Your task to perform on an android device: Do I have any events tomorrow? Image 0: 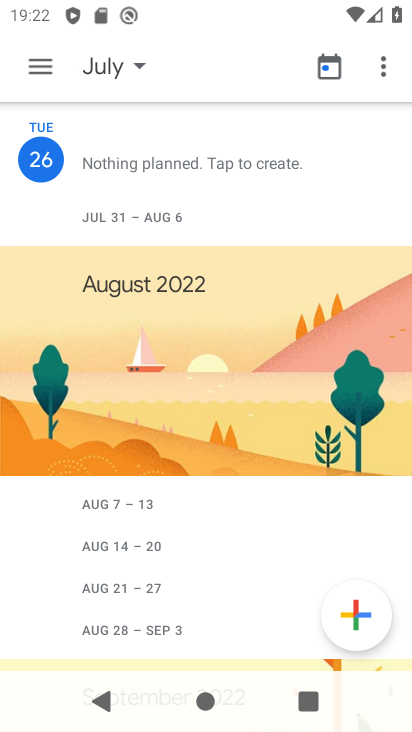
Step 0: click (120, 66)
Your task to perform on an android device: Do I have any events tomorrow? Image 1: 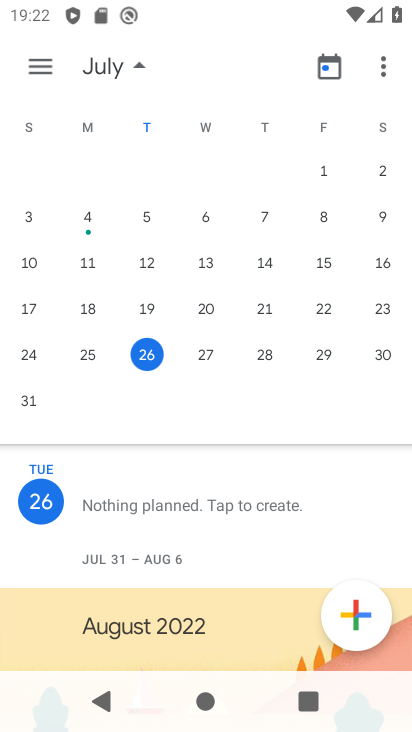
Step 1: click (203, 353)
Your task to perform on an android device: Do I have any events tomorrow? Image 2: 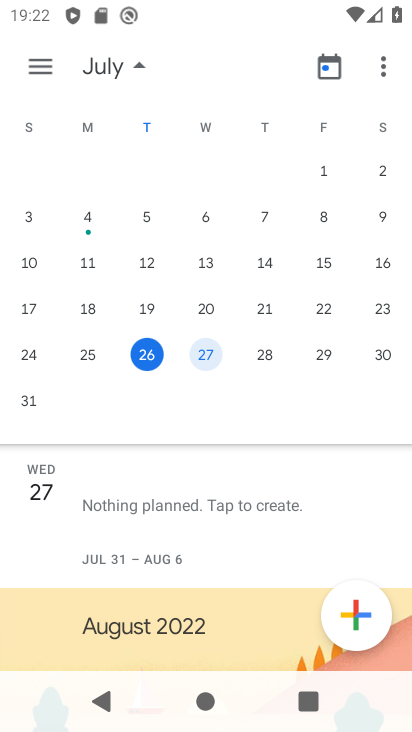
Step 2: click (44, 67)
Your task to perform on an android device: Do I have any events tomorrow? Image 3: 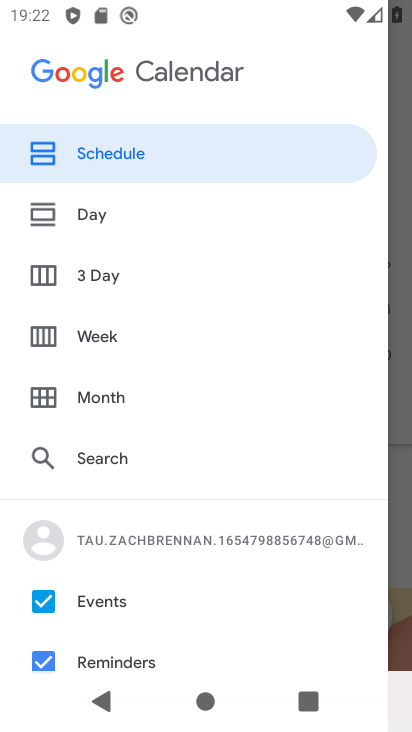
Step 3: click (94, 212)
Your task to perform on an android device: Do I have any events tomorrow? Image 4: 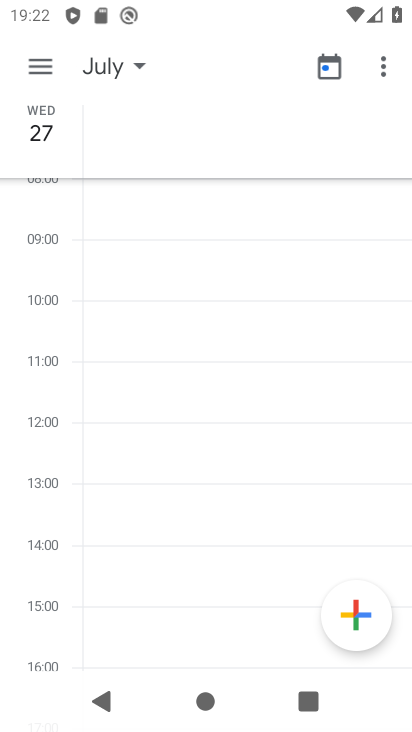
Step 4: click (43, 63)
Your task to perform on an android device: Do I have any events tomorrow? Image 5: 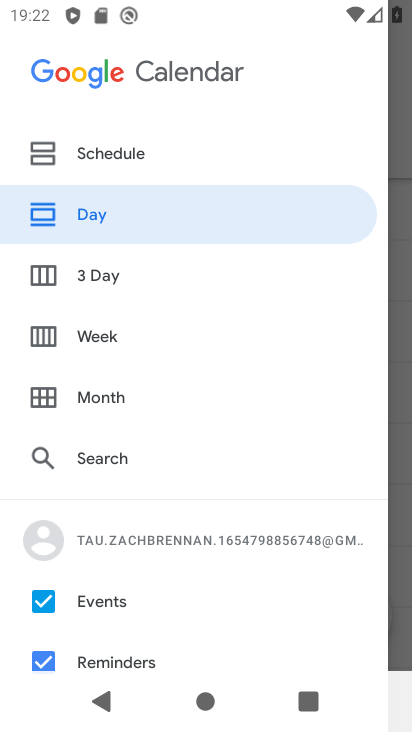
Step 5: click (105, 148)
Your task to perform on an android device: Do I have any events tomorrow? Image 6: 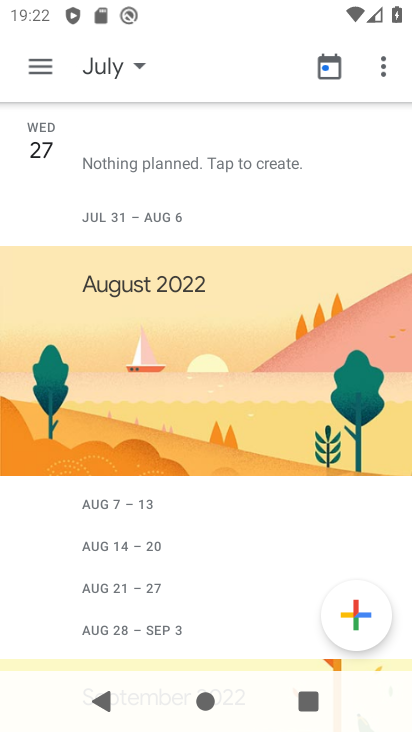
Step 6: task complete